Your task to perform on an android device: When is my next meeting? Image 0: 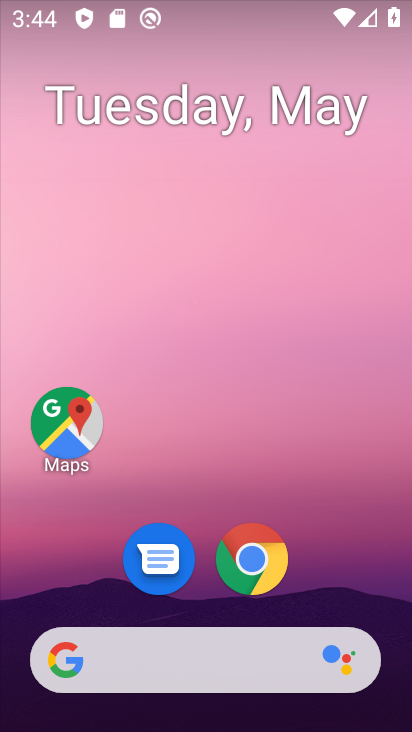
Step 0: drag from (339, 600) to (271, 189)
Your task to perform on an android device: When is my next meeting? Image 1: 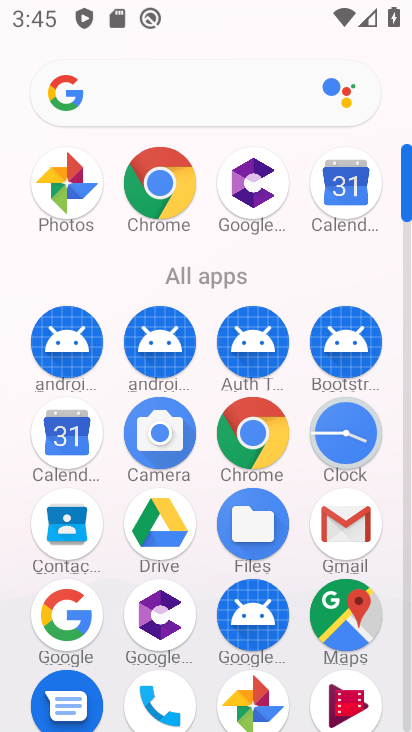
Step 1: click (62, 443)
Your task to perform on an android device: When is my next meeting? Image 2: 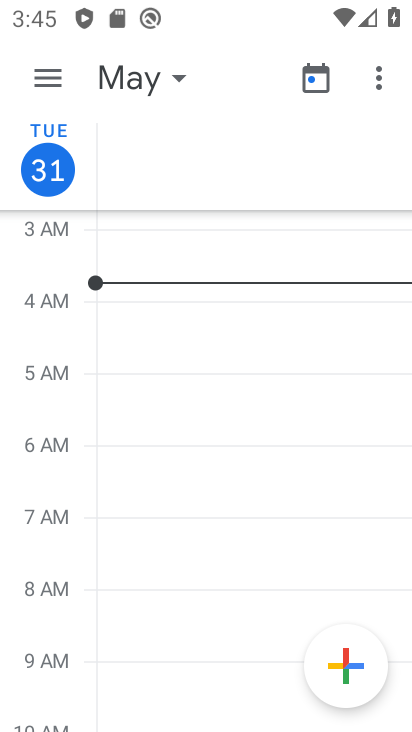
Step 2: click (58, 69)
Your task to perform on an android device: When is my next meeting? Image 3: 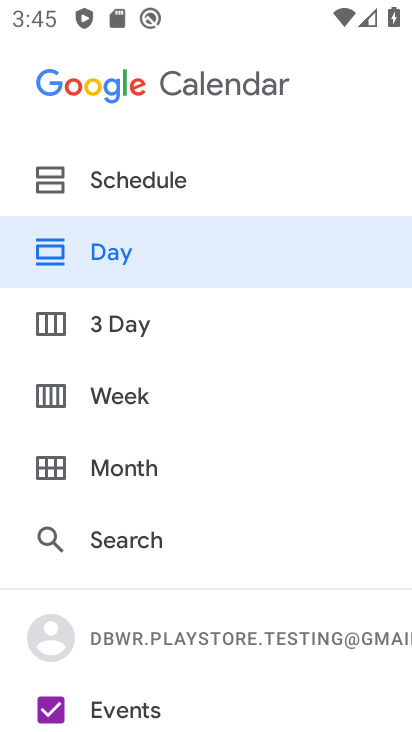
Step 3: click (119, 184)
Your task to perform on an android device: When is my next meeting? Image 4: 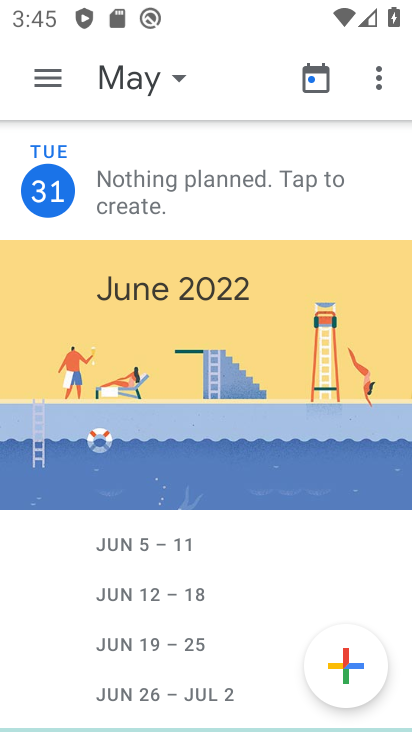
Step 4: task complete